Your task to perform on an android device: open device folders in google photos Image 0: 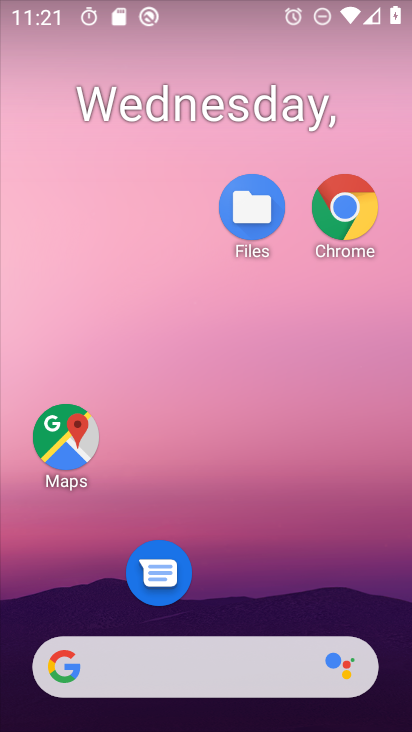
Step 0: drag from (229, 601) to (261, 151)
Your task to perform on an android device: open device folders in google photos Image 1: 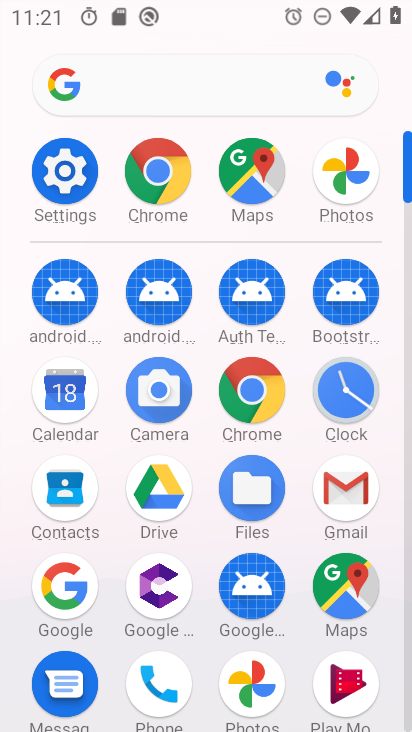
Step 1: drag from (281, 626) to (293, 286)
Your task to perform on an android device: open device folders in google photos Image 2: 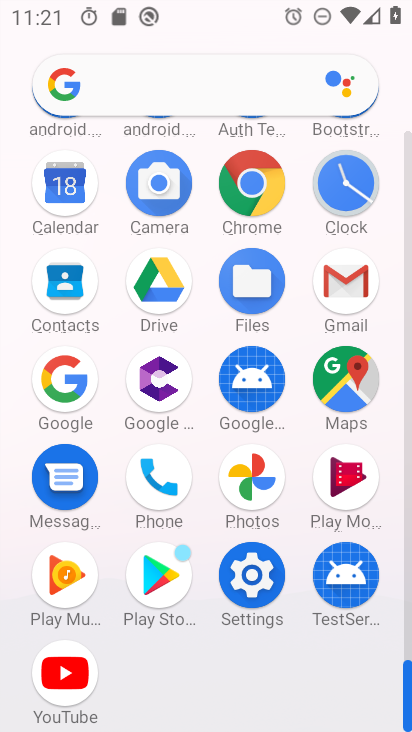
Step 2: click (263, 495)
Your task to perform on an android device: open device folders in google photos Image 3: 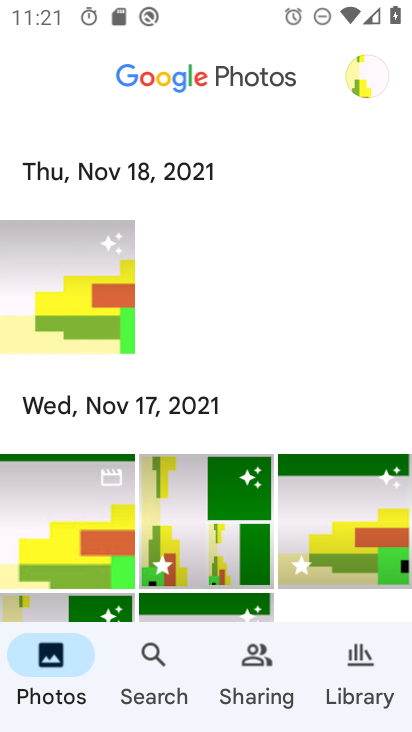
Step 3: click (359, 93)
Your task to perform on an android device: open device folders in google photos Image 4: 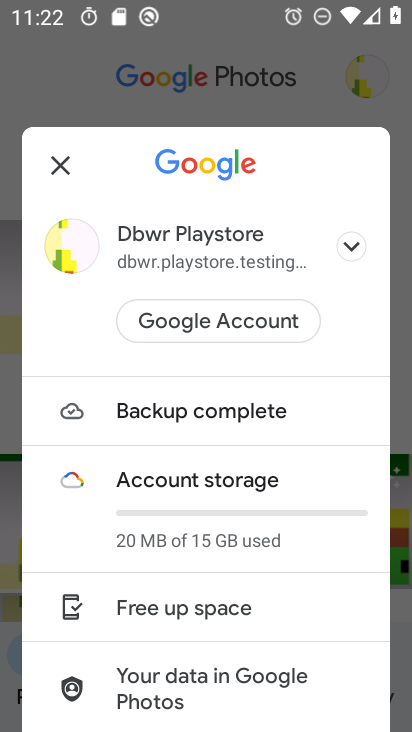
Step 4: task complete